Your task to perform on an android device: Go to Yahoo.com Image 0: 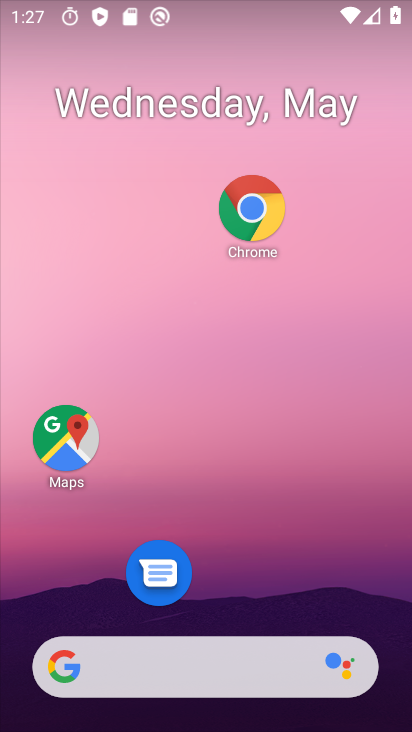
Step 0: click (251, 219)
Your task to perform on an android device: Go to Yahoo.com Image 1: 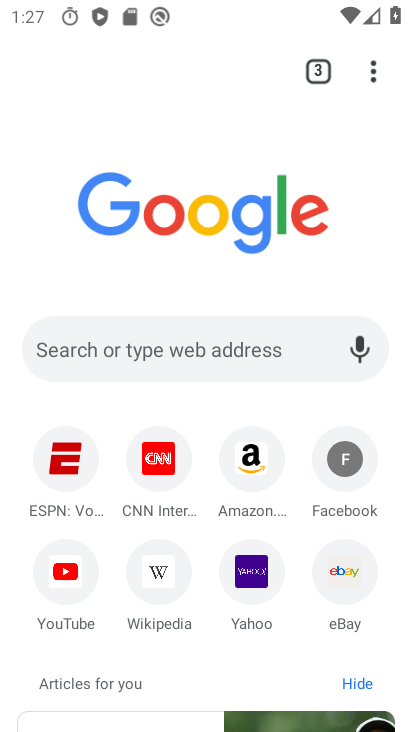
Step 1: click (252, 579)
Your task to perform on an android device: Go to Yahoo.com Image 2: 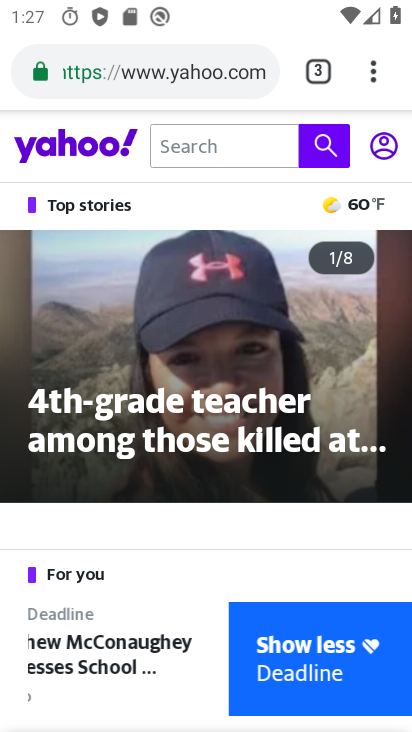
Step 2: task complete